Your task to perform on an android device: Search for Italian restaurants on Maps Image 0: 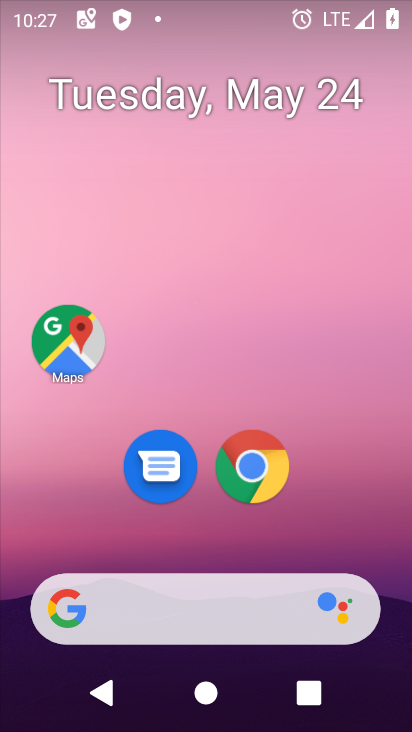
Step 0: drag from (399, 570) to (392, 279)
Your task to perform on an android device: Search for Italian restaurants on Maps Image 1: 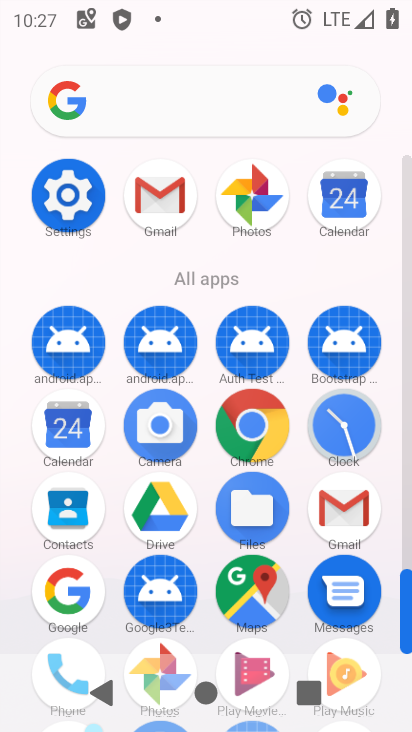
Step 1: click (259, 607)
Your task to perform on an android device: Search for Italian restaurants on Maps Image 2: 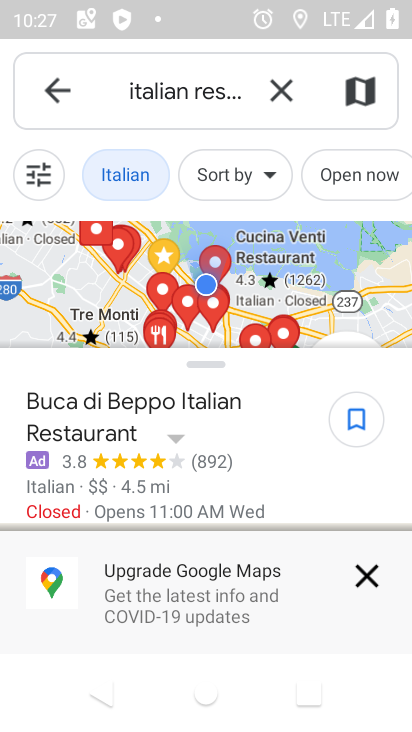
Step 2: task complete